Your task to perform on an android device: change your default location settings in chrome Image 0: 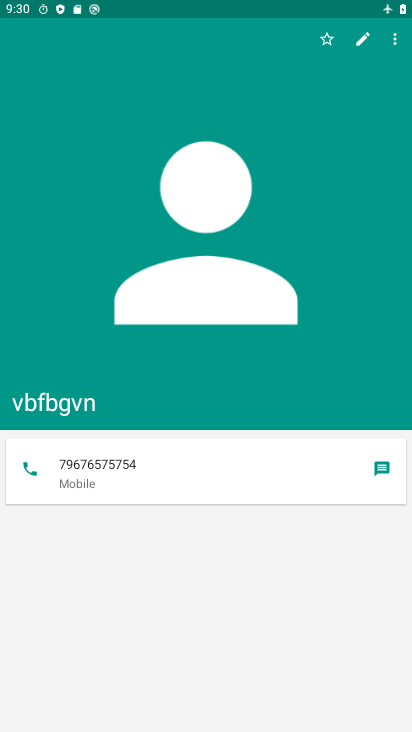
Step 0: press home button
Your task to perform on an android device: change your default location settings in chrome Image 1: 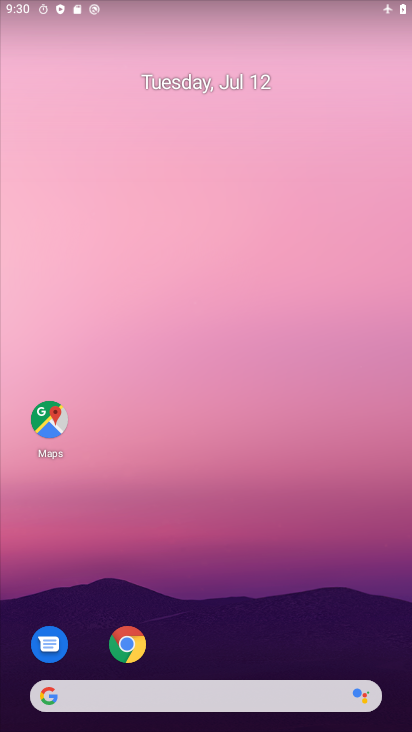
Step 1: click (139, 636)
Your task to perform on an android device: change your default location settings in chrome Image 2: 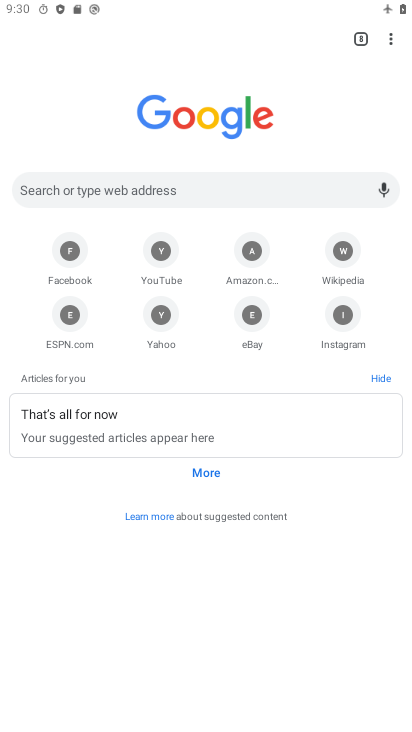
Step 2: click (384, 41)
Your task to perform on an android device: change your default location settings in chrome Image 3: 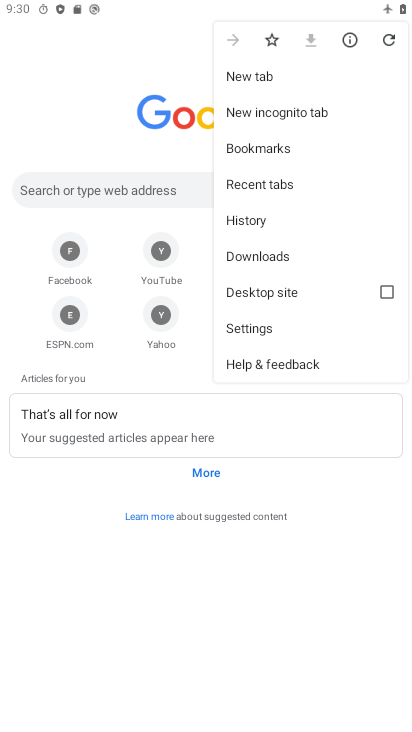
Step 3: click (272, 326)
Your task to perform on an android device: change your default location settings in chrome Image 4: 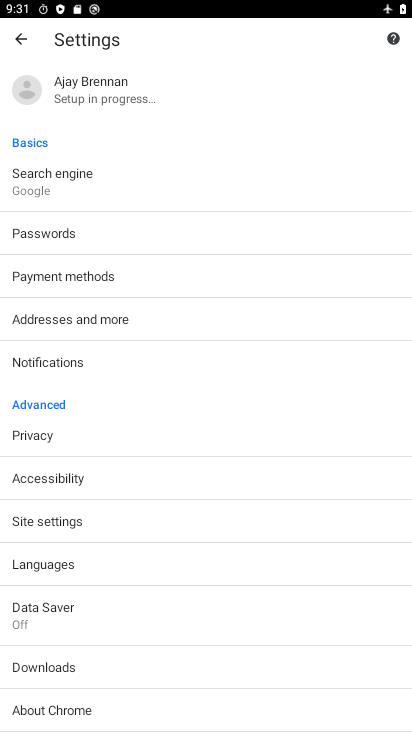
Step 4: click (79, 531)
Your task to perform on an android device: change your default location settings in chrome Image 5: 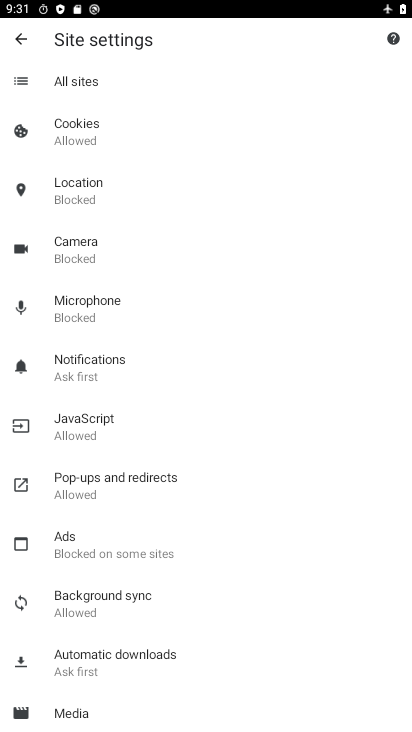
Step 5: click (140, 197)
Your task to perform on an android device: change your default location settings in chrome Image 6: 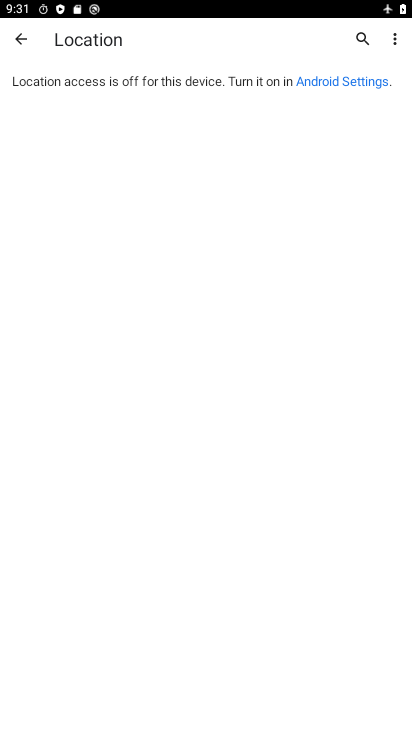
Step 6: task complete